Your task to perform on an android device: Go to accessibility settings Image 0: 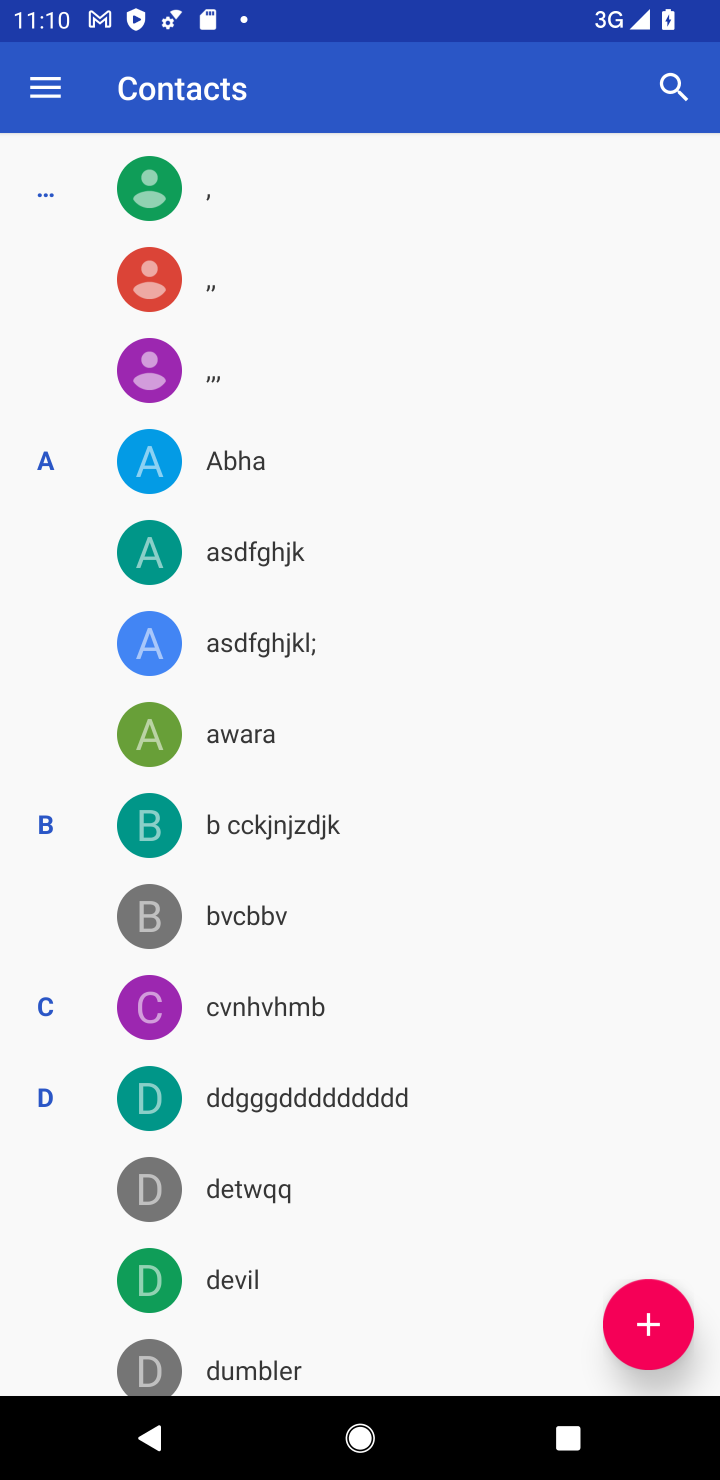
Step 0: press home button
Your task to perform on an android device: Go to accessibility settings Image 1: 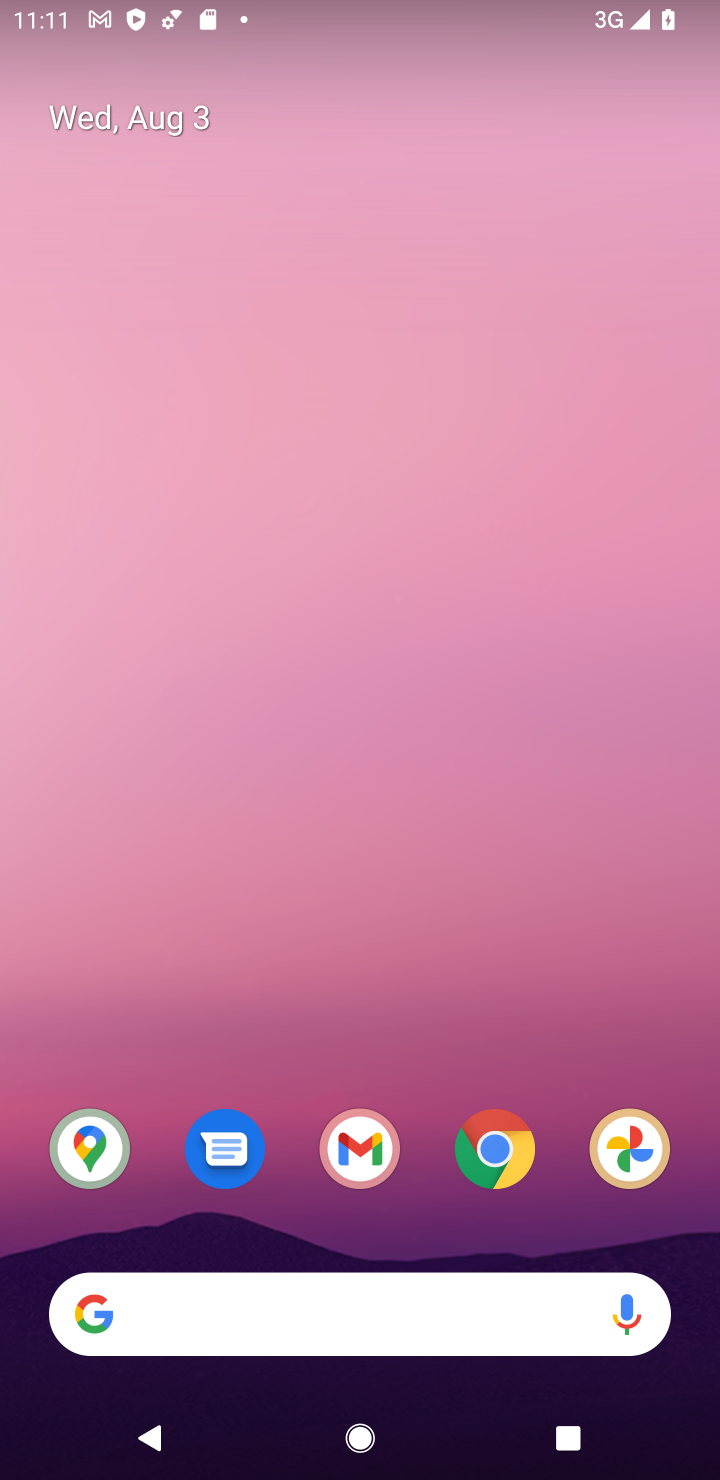
Step 1: drag from (444, 1065) to (342, 268)
Your task to perform on an android device: Go to accessibility settings Image 2: 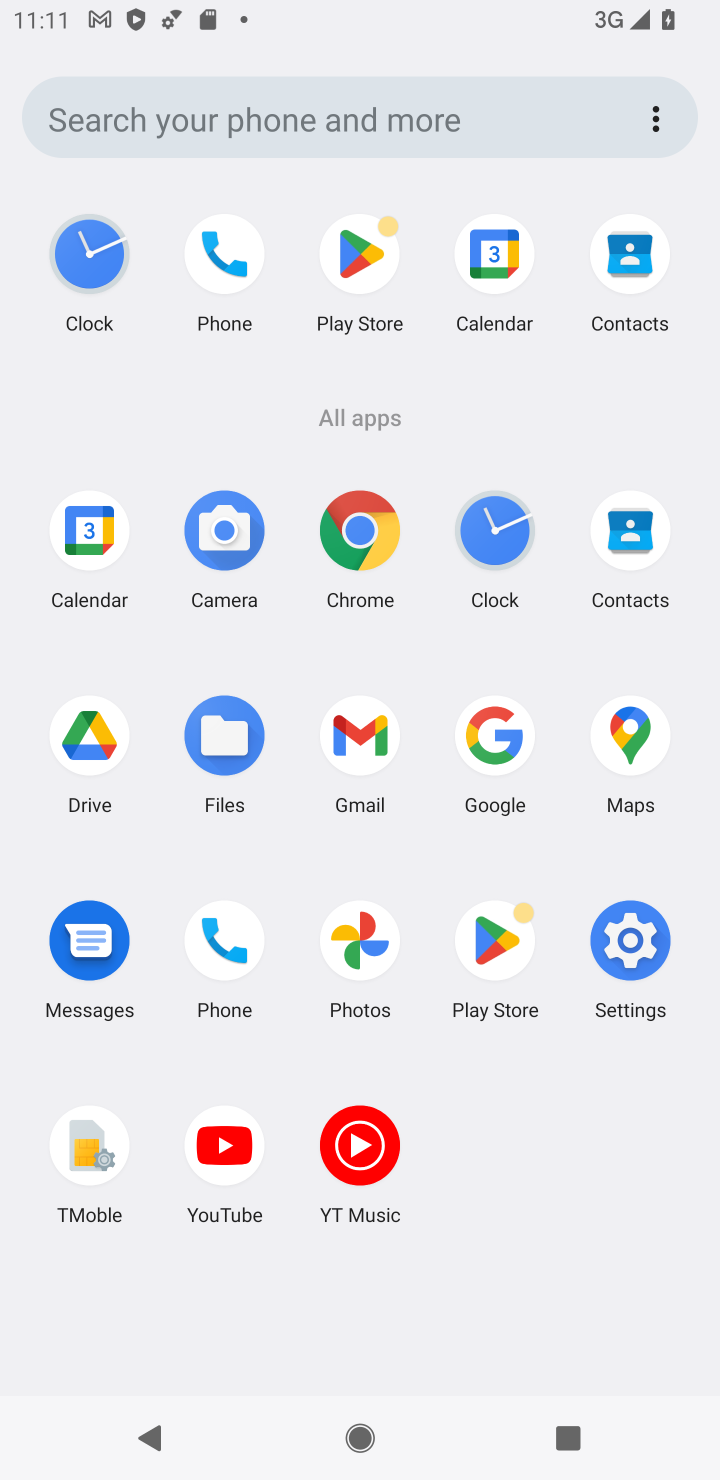
Step 2: click (635, 962)
Your task to perform on an android device: Go to accessibility settings Image 3: 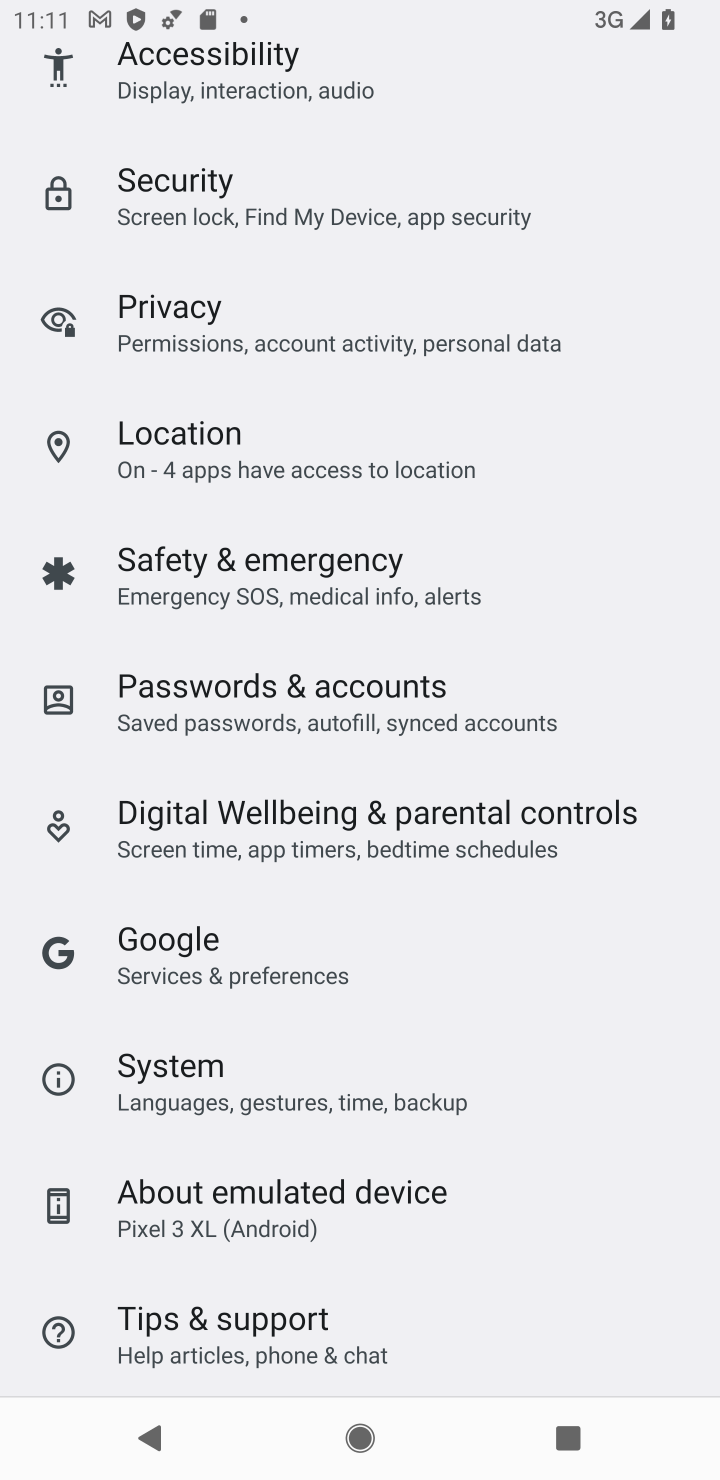
Step 3: click (295, 96)
Your task to perform on an android device: Go to accessibility settings Image 4: 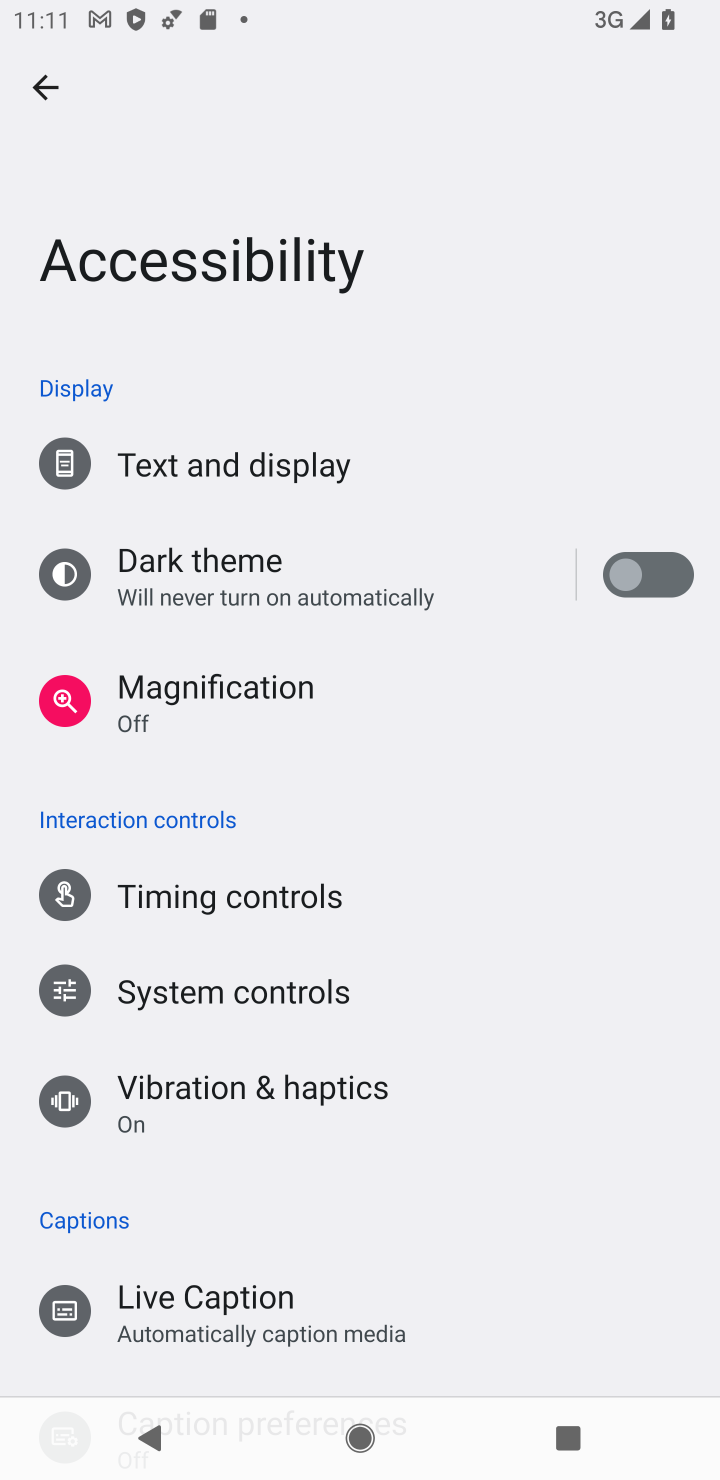
Step 4: task complete